Your task to perform on an android device: Search for Italian restaurants on Maps Image 0: 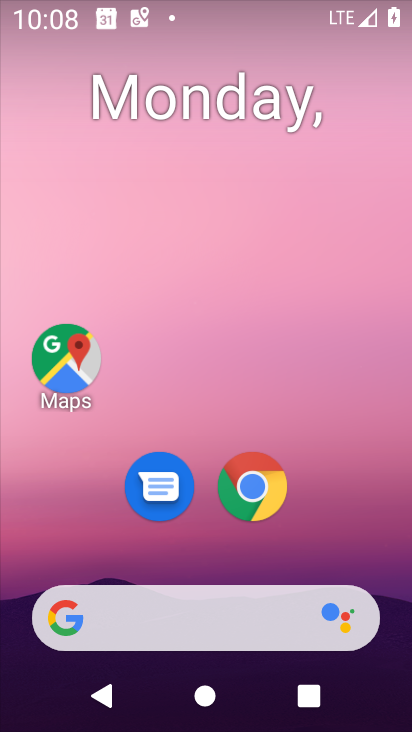
Step 0: drag from (386, 614) to (276, 42)
Your task to perform on an android device: Search for Italian restaurants on Maps Image 1: 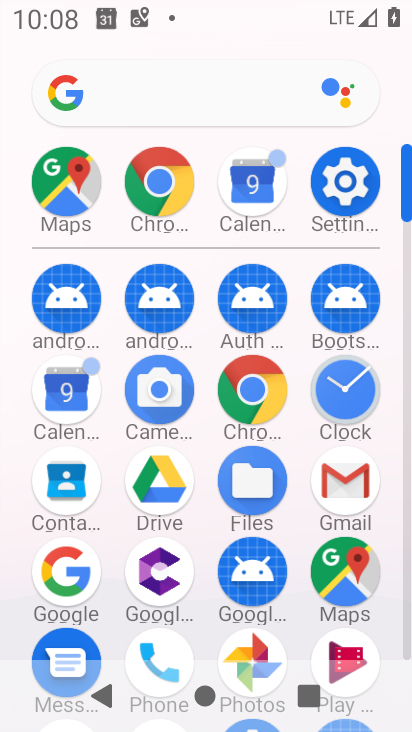
Step 1: drag from (10, 548) to (22, 155)
Your task to perform on an android device: Search for Italian restaurants on Maps Image 2: 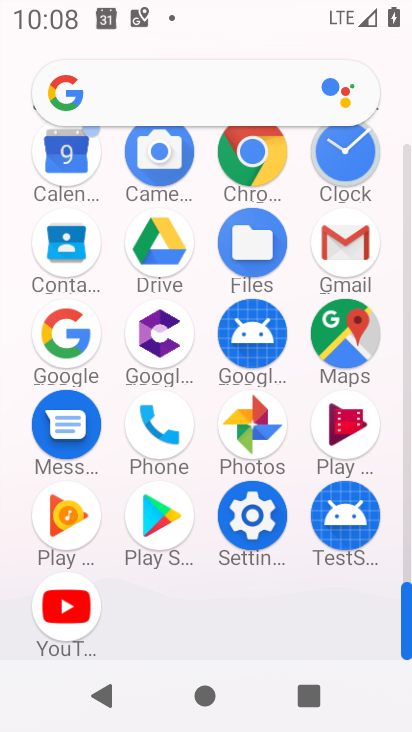
Step 2: click (342, 332)
Your task to perform on an android device: Search for Italian restaurants on Maps Image 3: 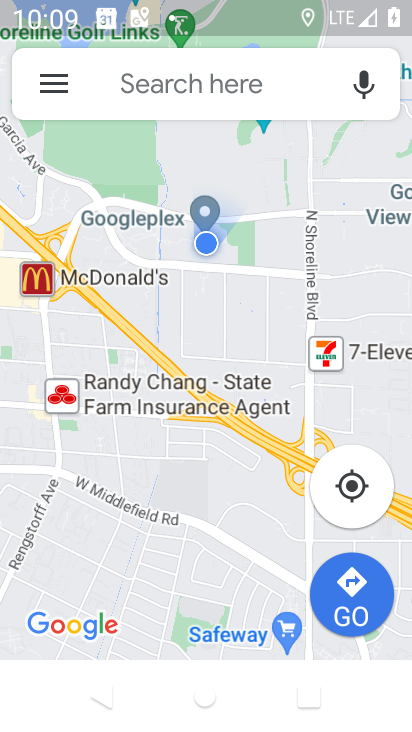
Step 3: click (282, 71)
Your task to perform on an android device: Search for Italian restaurants on Maps Image 4: 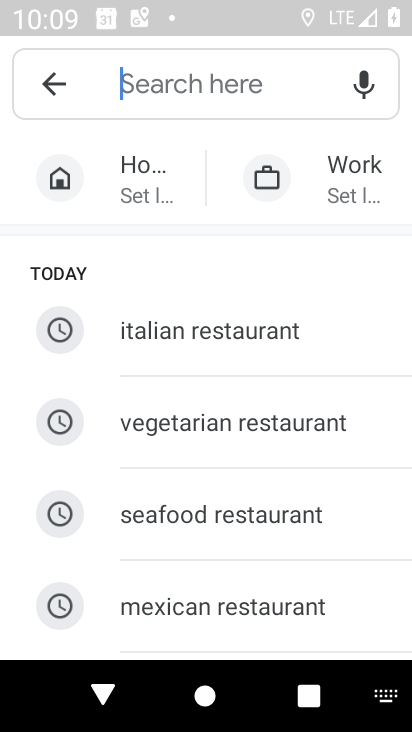
Step 4: drag from (271, 555) to (290, 293)
Your task to perform on an android device: Search for Italian restaurants on Maps Image 5: 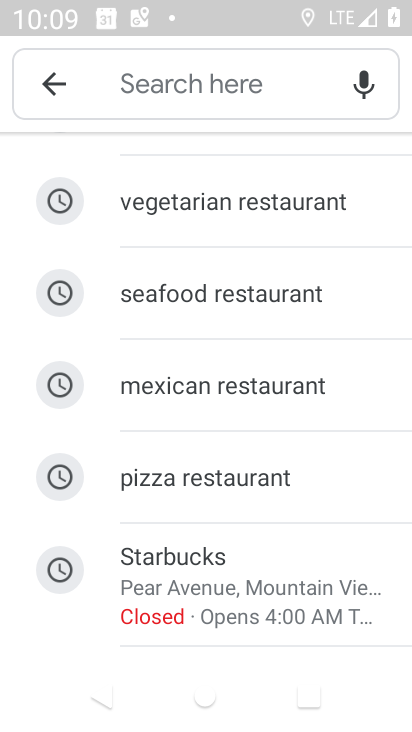
Step 5: drag from (290, 291) to (293, 597)
Your task to perform on an android device: Search for Italian restaurants on Maps Image 6: 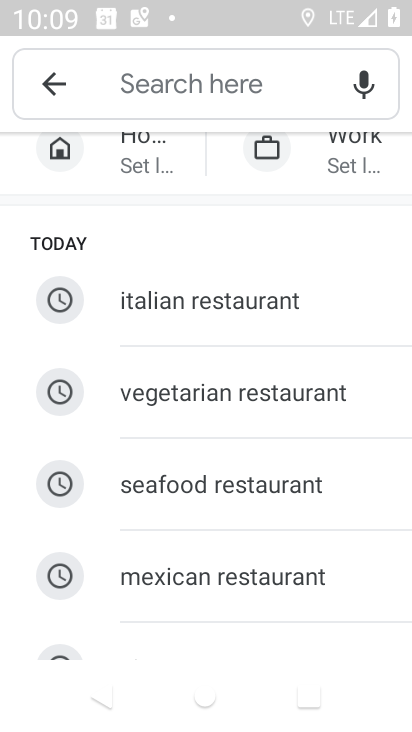
Step 6: click (246, 303)
Your task to perform on an android device: Search for Italian restaurants on Maps Image 7: 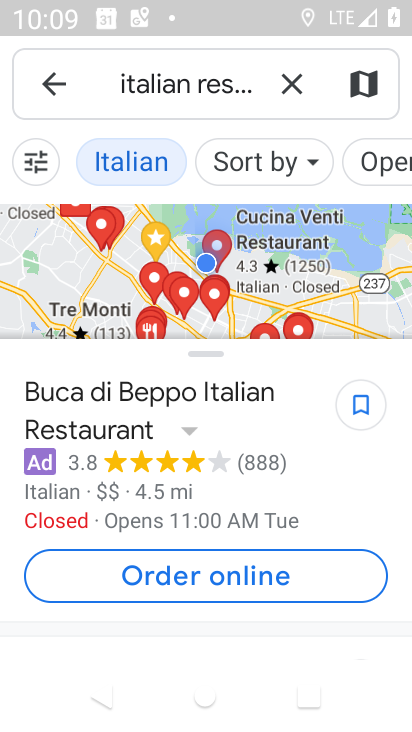
Step 7: task complete